Your task to perform on an android device: find which apps use the phone's location Image 0: 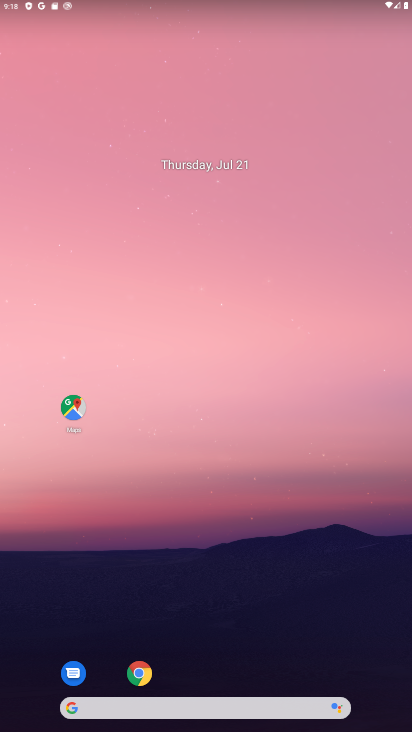
Step 0: press home button
Your task to perform on an android device: find which apps use the phone's location Image 1: 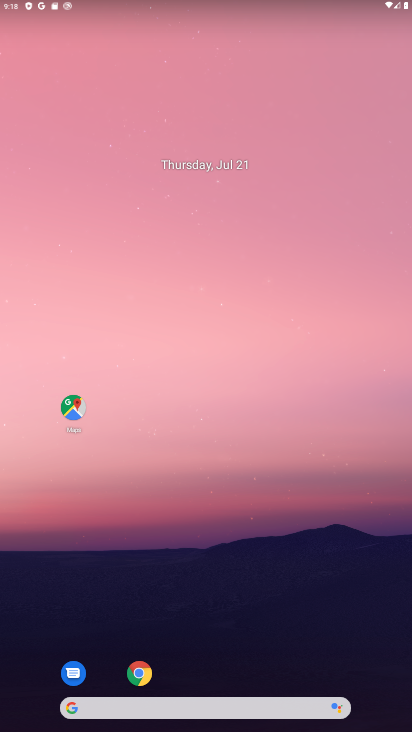
Step 1: drag from (214, 679) to (230, 46)
Your task to perform on an android device: find which apps use the phone's location Image 2: 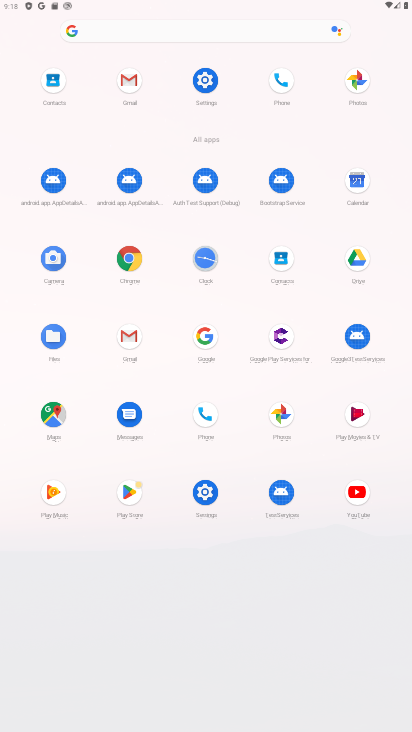
Step 2: click (200, 486)
Your task to perform on an android device: find which apps use the phone's location Image 3: 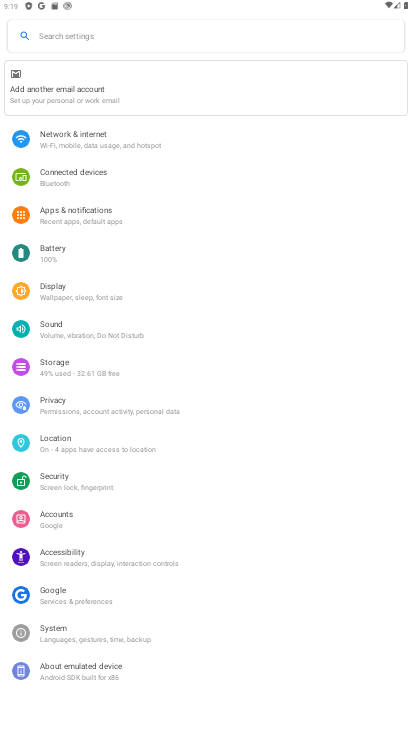
Step 3: click (78, 440)
Your task to perform on an android device: find which apps use the phone's location Image 4: 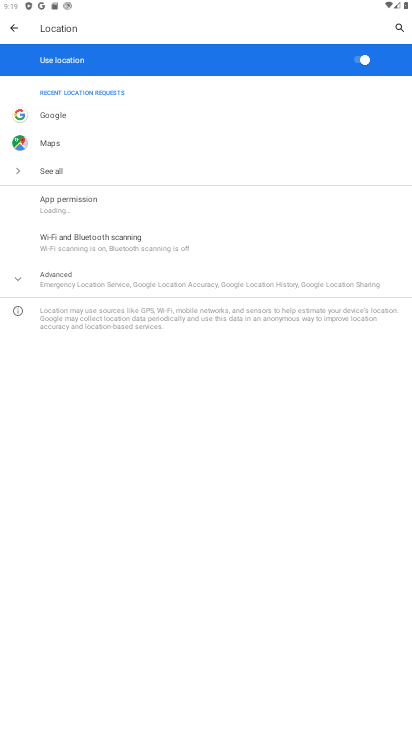
Step 4: click (90, 203)
Your task to perform on an android device: find which apps use the phone's location Image 5: 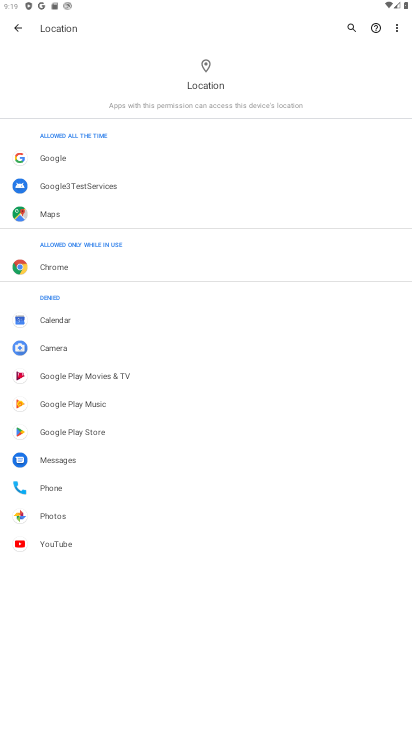
Step 5: task complete